Your task to perform on an android device: Open calendar and show me the second week of next month Image 0: 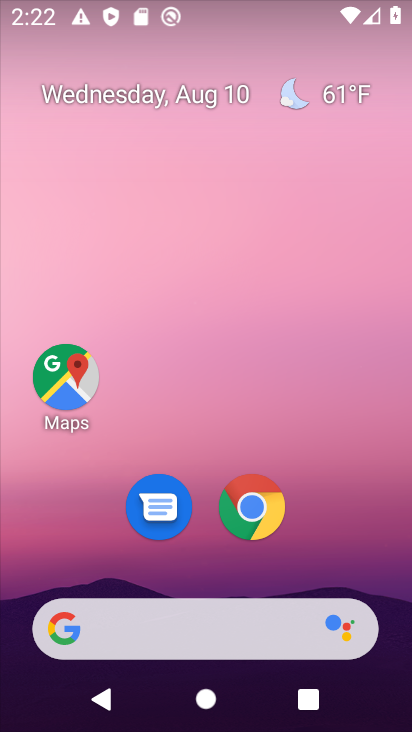
Step 0: drag from (321, 336) to (233, 1)
Your task to perform on an android device: Open calendar and show me the second week of next month Image 1: 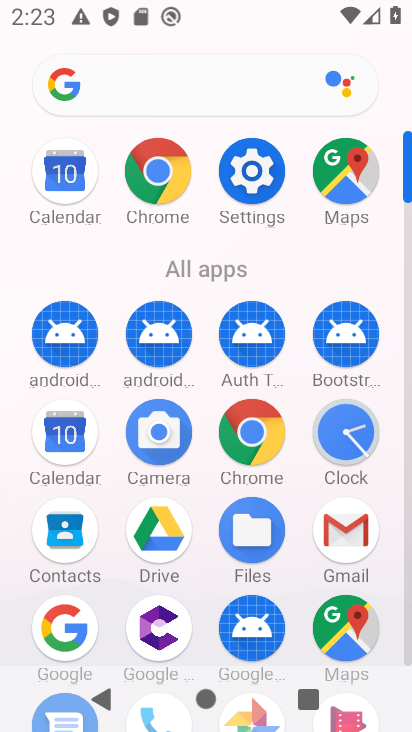
Step 1: click (67, 435)
Your task to perform on an android device: Open calendar and show me the second week of next month Image 2: 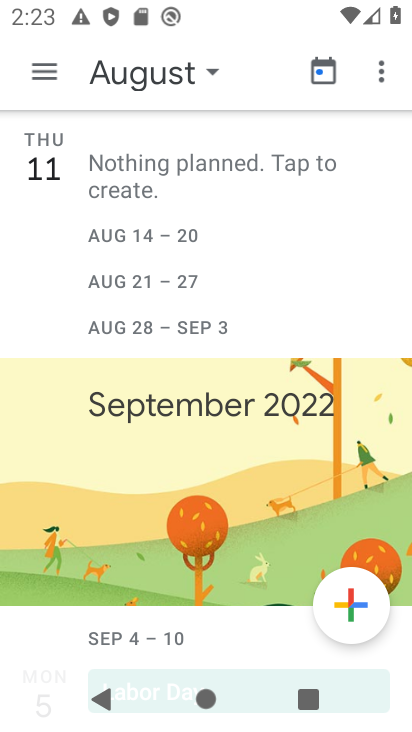
Step 2: click (111, 68)
Your task to perform on an android device: Open calendar and show me the second week of next month Image 3: 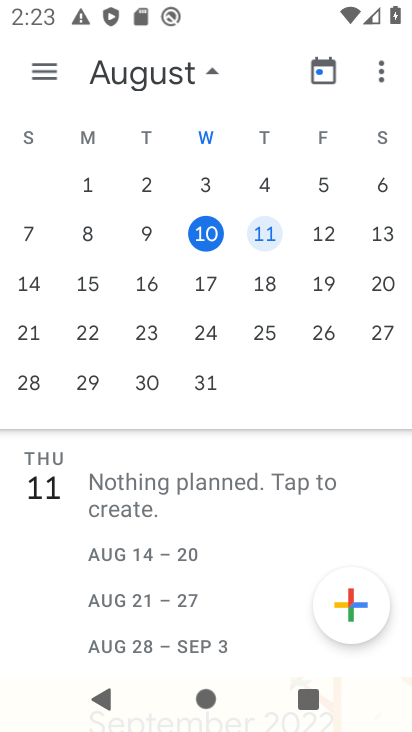
Step 3: drag from (375, 254) to (60, 232)
Your task to perform on an android device: Open calendar and show me the second week of next month Image 4: 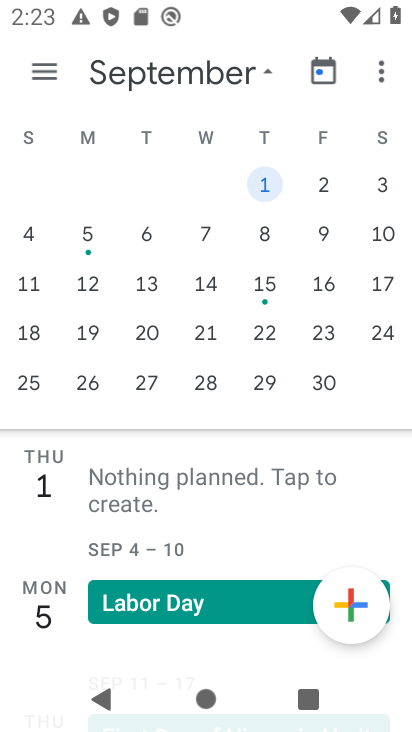
Step 4: click (154, 283)
Your task to perform on an android device: Open calendar and show me the second week of next month Image 5: 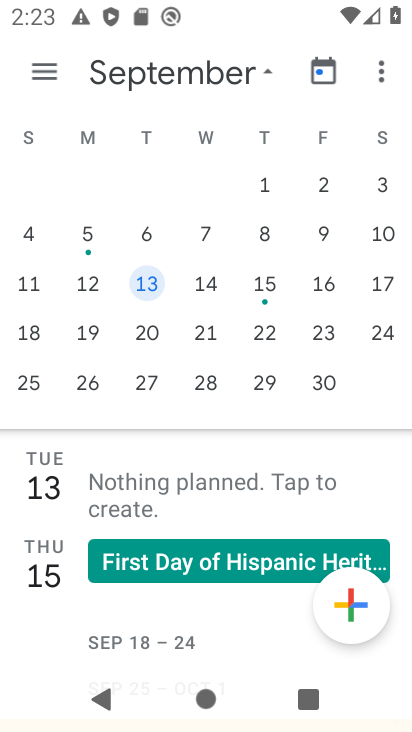
Step 5: click (32, 58)
Your task to perform on an android device: Open calendar and show me the second week of next month Image 6: 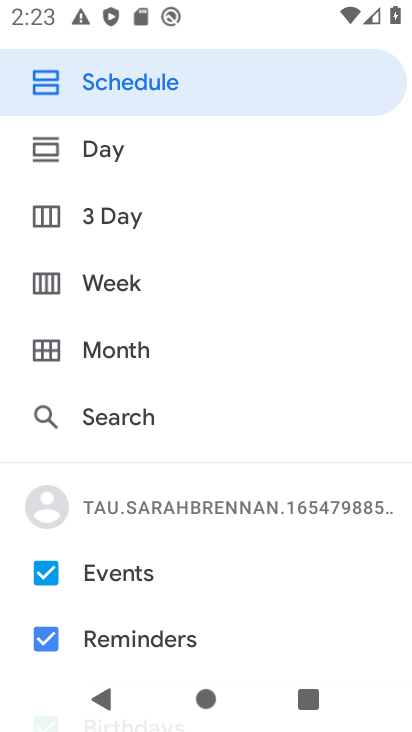
Step 6: click (100, 289)
Your task to perform on an android device: Open calendar and show me the second week of next month Image 7: 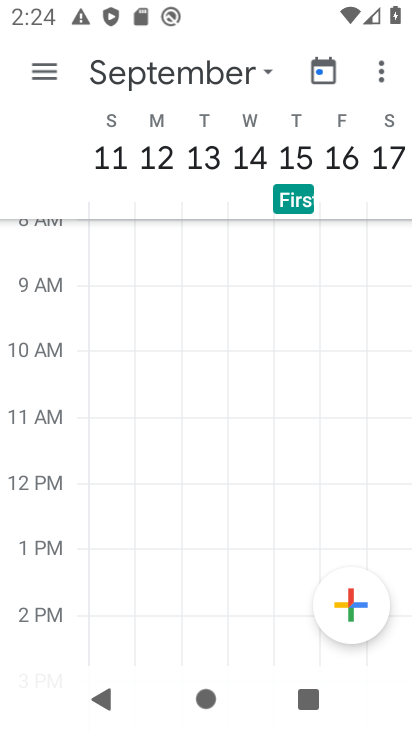
Step 7: task complete